Your task to perform on an android device: delete browsing data in the chrome app Image 0: 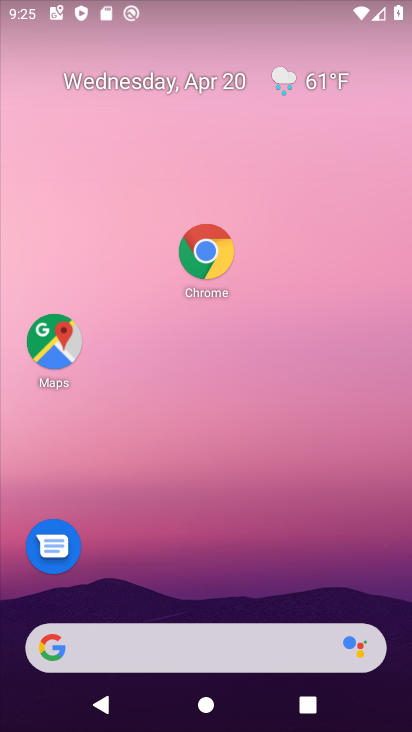
Step 0: click (201, 254)
Your task to perform on an android device: delete browsing data in the chrome app Image 1: 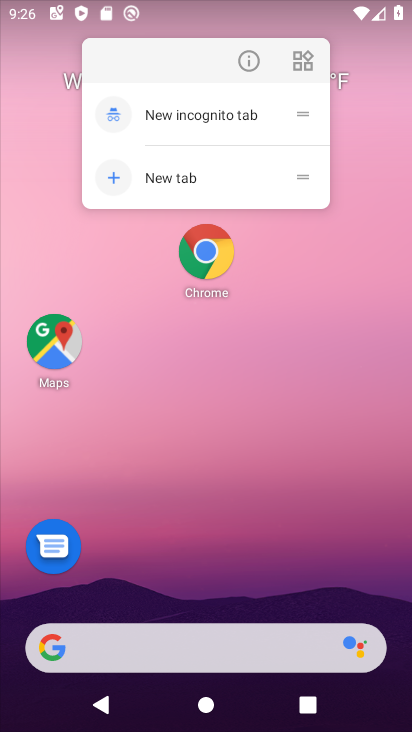
Step 1: click (201, 254)
Your task to perform on an android device: delete browsing data in the chrome app Image 2: 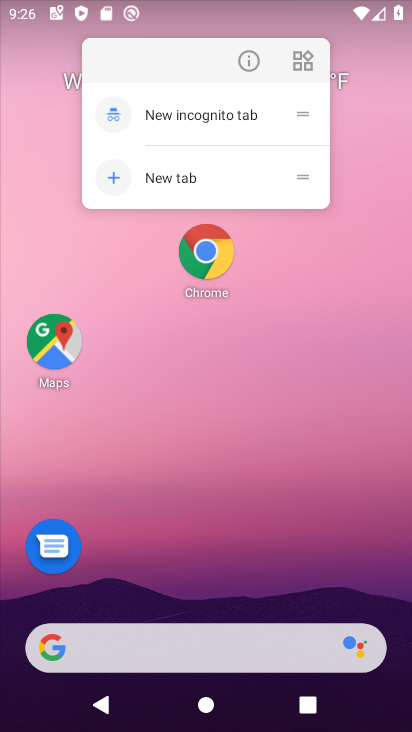
Step 2: click (201, 254)
Your task to perform on an android device: delete browsing data in the chrome app Image 3: 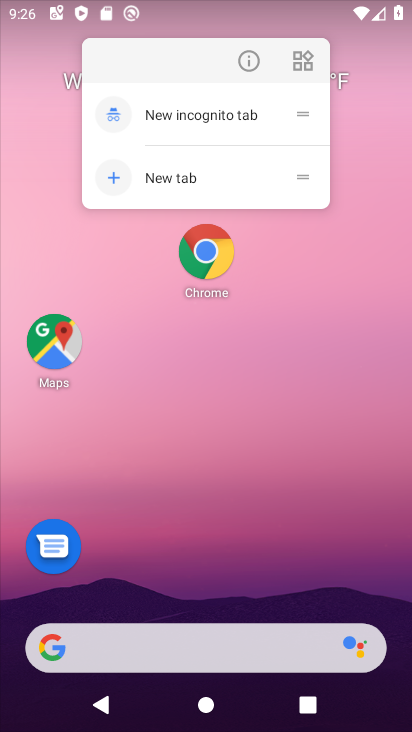
Step 3: click (201, 254)
Your task to perform on an android device: delete browsing data in the chrome app Image 4: 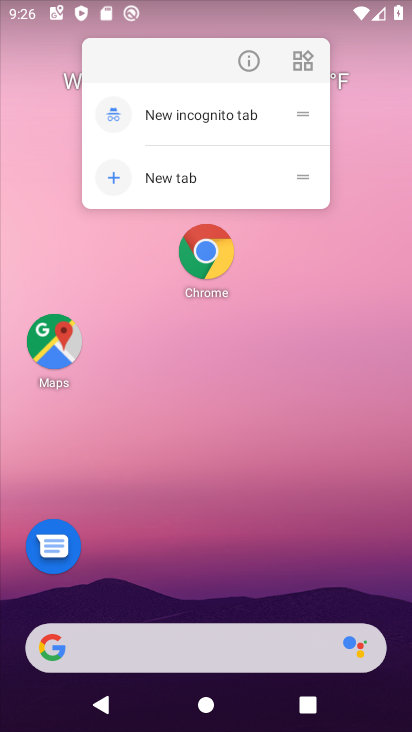
Step 4: click (207, 262)
Your task to perform on an android device: delete browsing data in the chrome app Image 5: 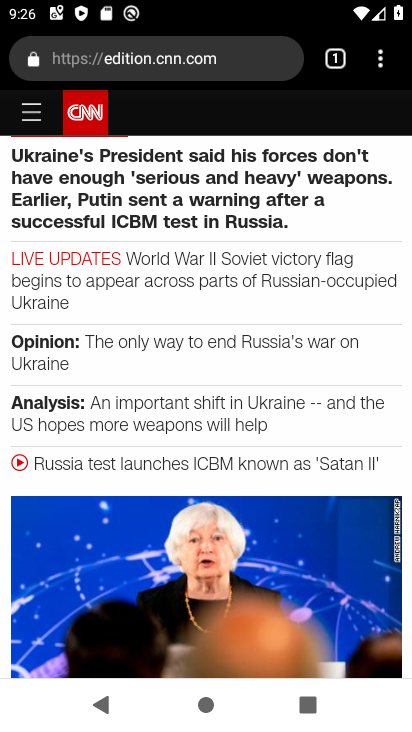
Step 5: click (381, 59)
Your task to perform on an android device: delete browsing data in the chrome app Image 6: 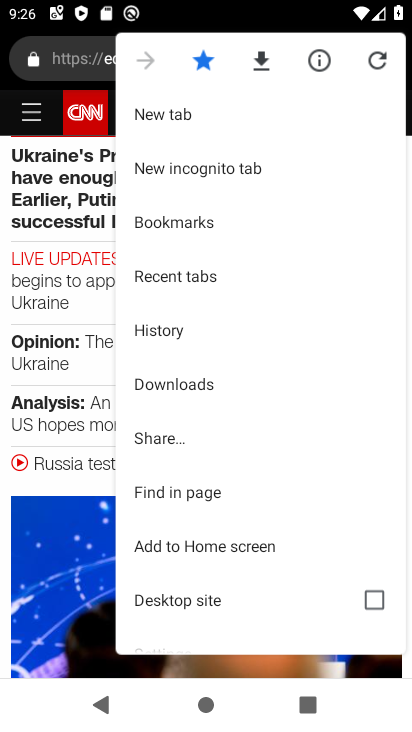
Step 6: click (172, 330)
Your task to perform on an android device: delete browsing data in the chrome app Image 7: 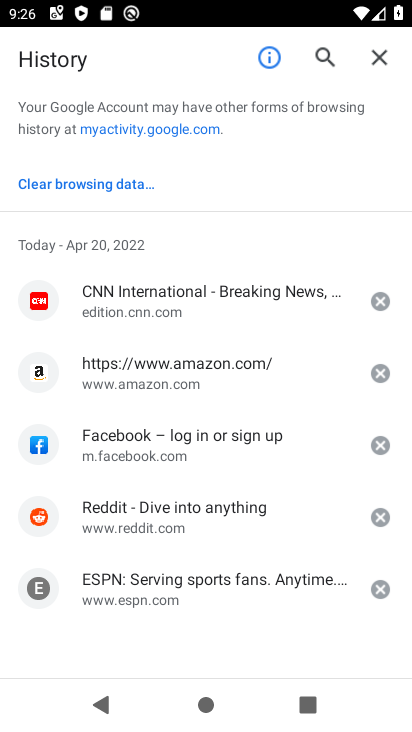
Step 7: click (101, 183)
Your task to perform on an android device: delete browsing data in the chrome app Image 8: 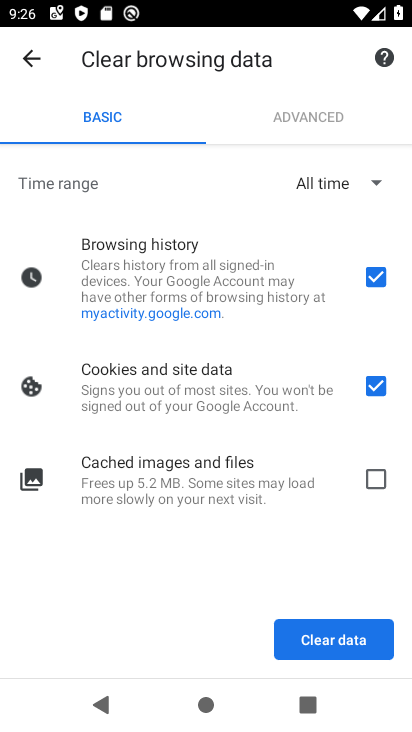
Step 8: click (372, 478)
Your task to perform on an android device: delete browsing data in the chrome app Image 9: 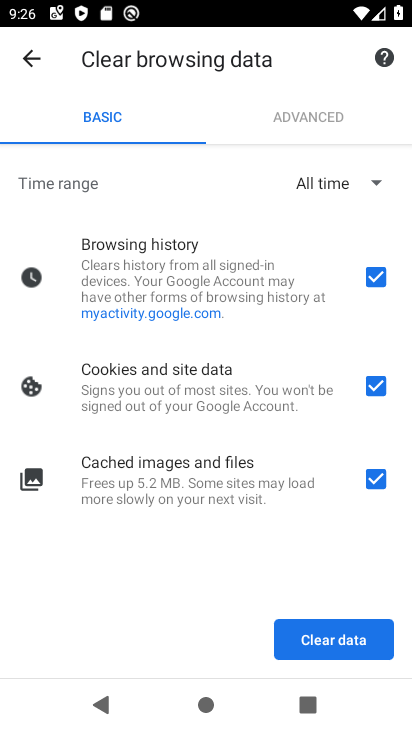
Step 9: click (333, 637)
Your task to perform on an android device: delete browsing data in the chrome app Image 10: 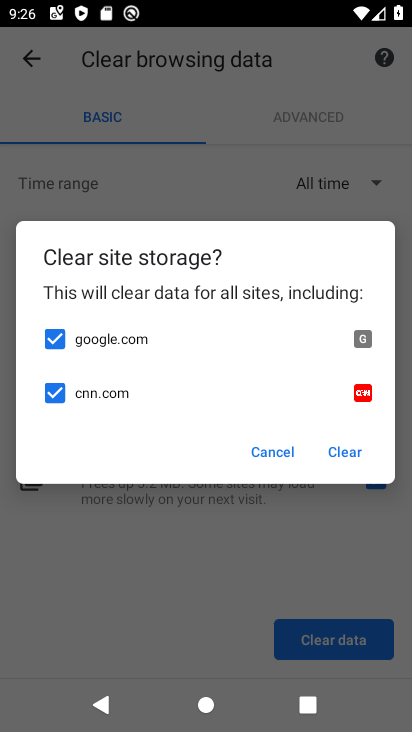
Step 10: click (349, 449)
Your task to perform on an android device: delete browsing data in the chrome app Image 11: 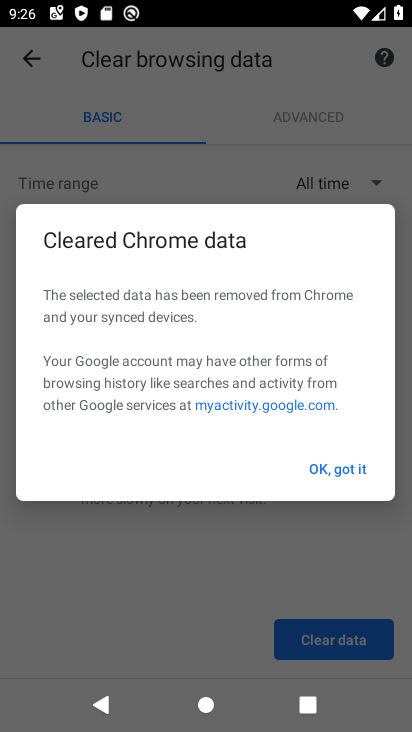
Step 11: click (345, 473)
Your task to perform on an android device: delete browsing data in the chrome app Image 12: 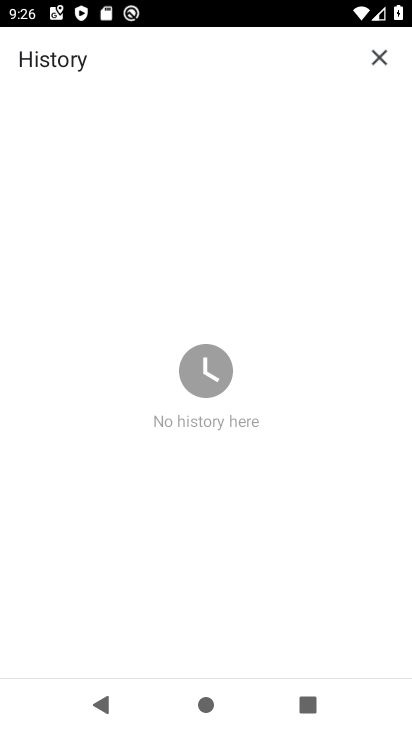
Step 12: task complete